Your task to perform on an android device: open app "ZOOM Cloud Meetings" (install if not already installed) Image 0: 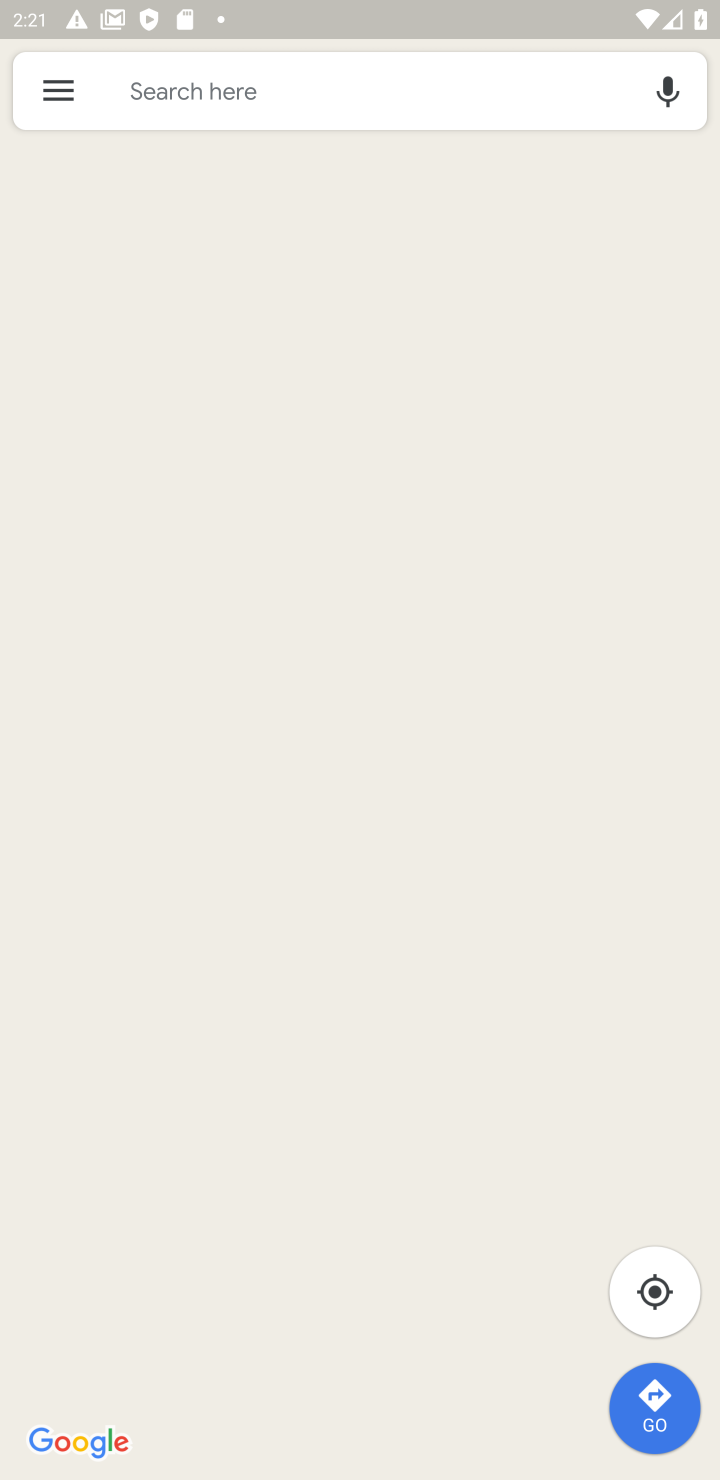
Step 0: press home button
Your task to perform on an android device: open app "ZOOM Cloud Meetings" (install if not already installed) Image 1: 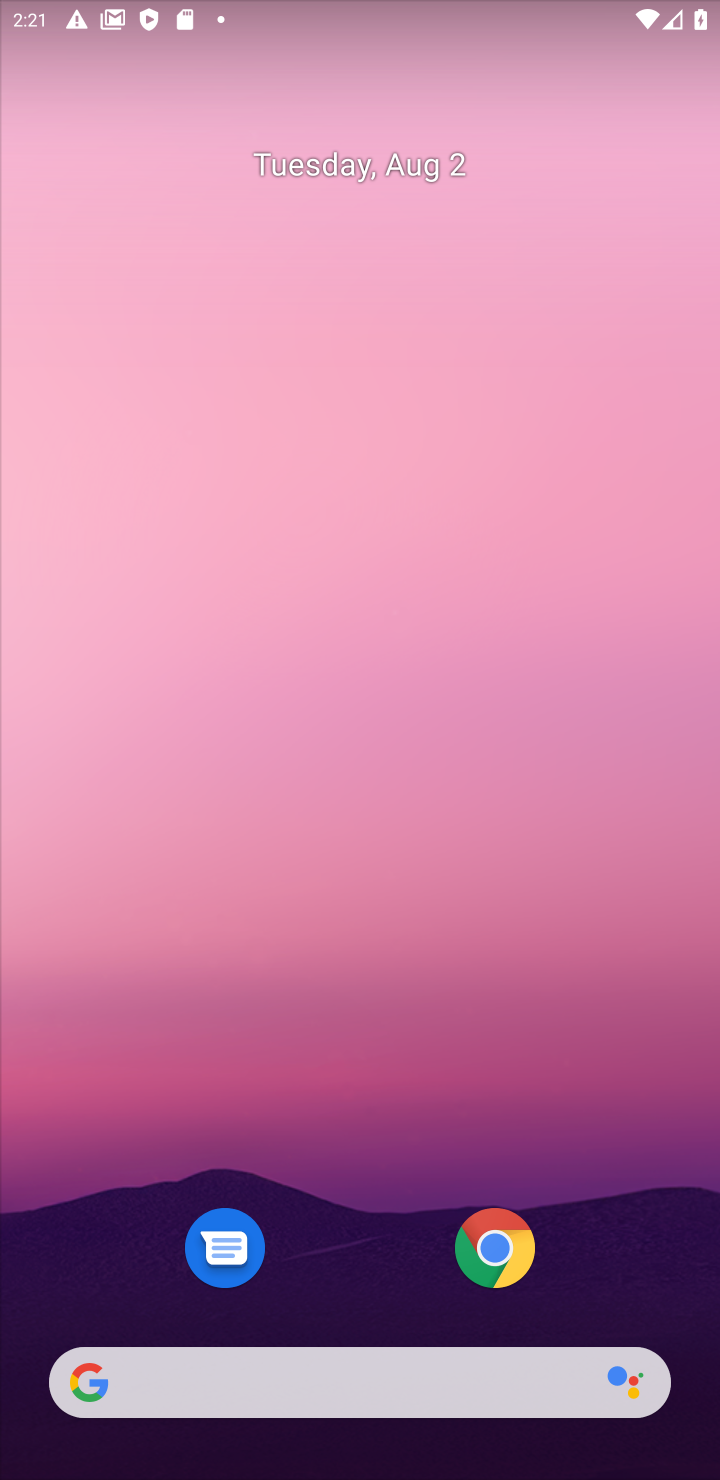
Step 1: drag from (406, 1294) to (393, 2)
Your task to perform on an android device: open app "ZOOM Cloud Meetings" (install if not already installed) Image 2: 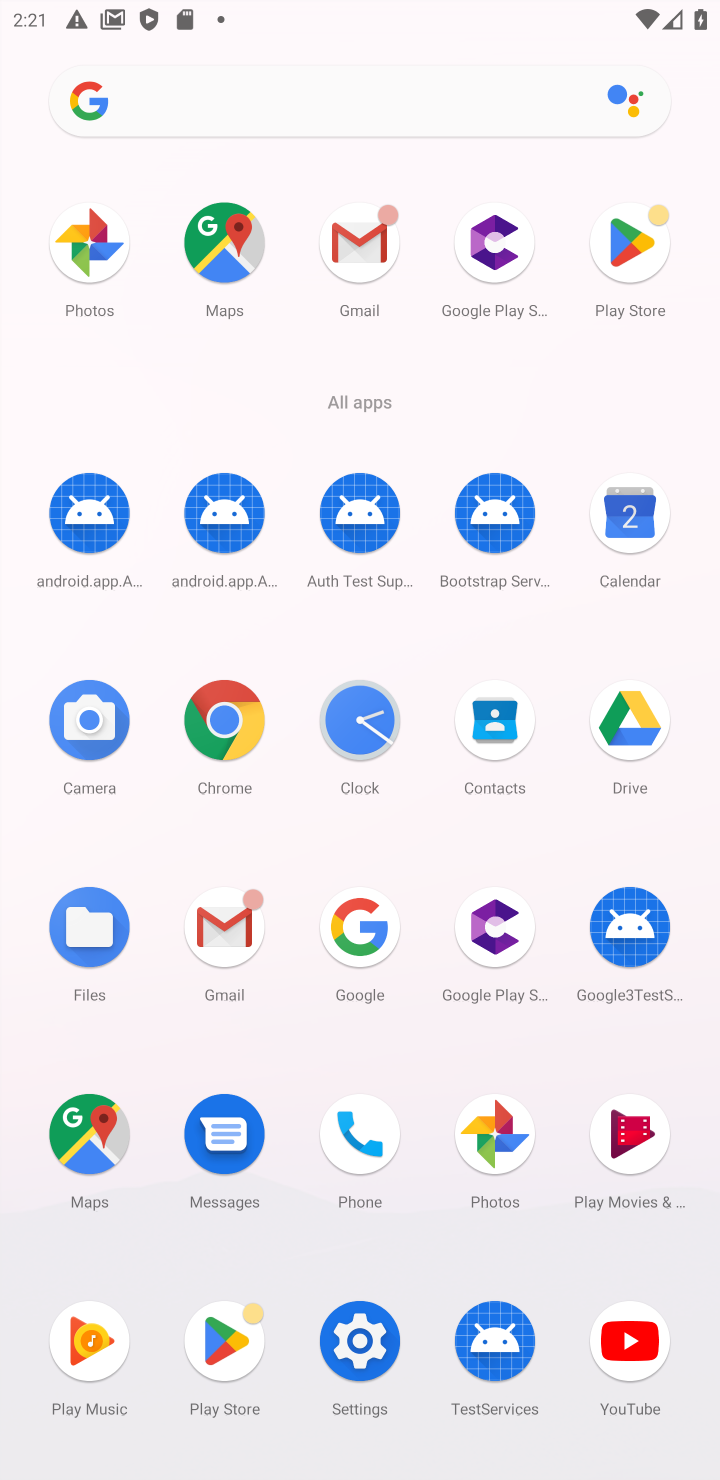
Step 2: click (639, 250)
Your task to perform on an android device: open app "ZOOM Cloud Meetings" (install if not already installed) Image 3: 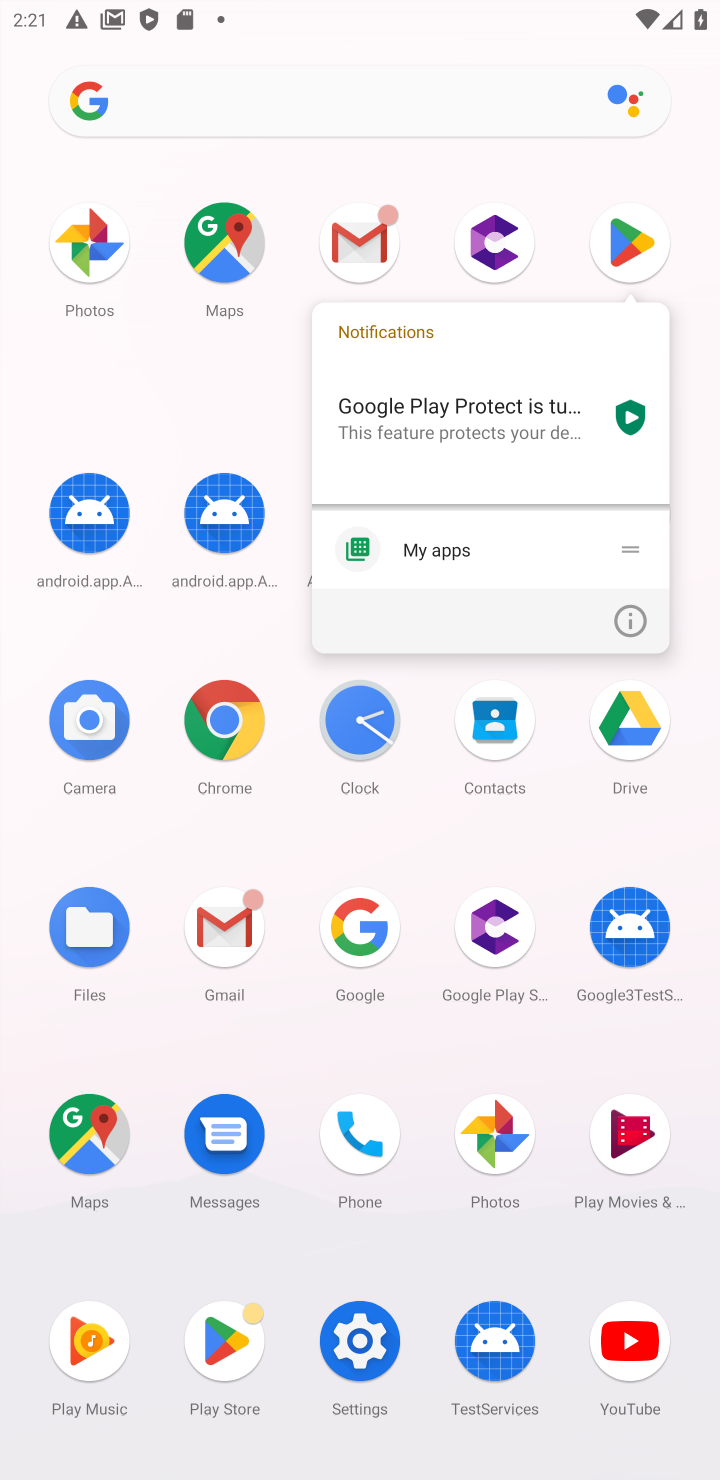
Step 3: click (623, 243)
Your task to perform on an android device: open app "ZOOM Cloud Meetings" (install if not already installed) Image 4: 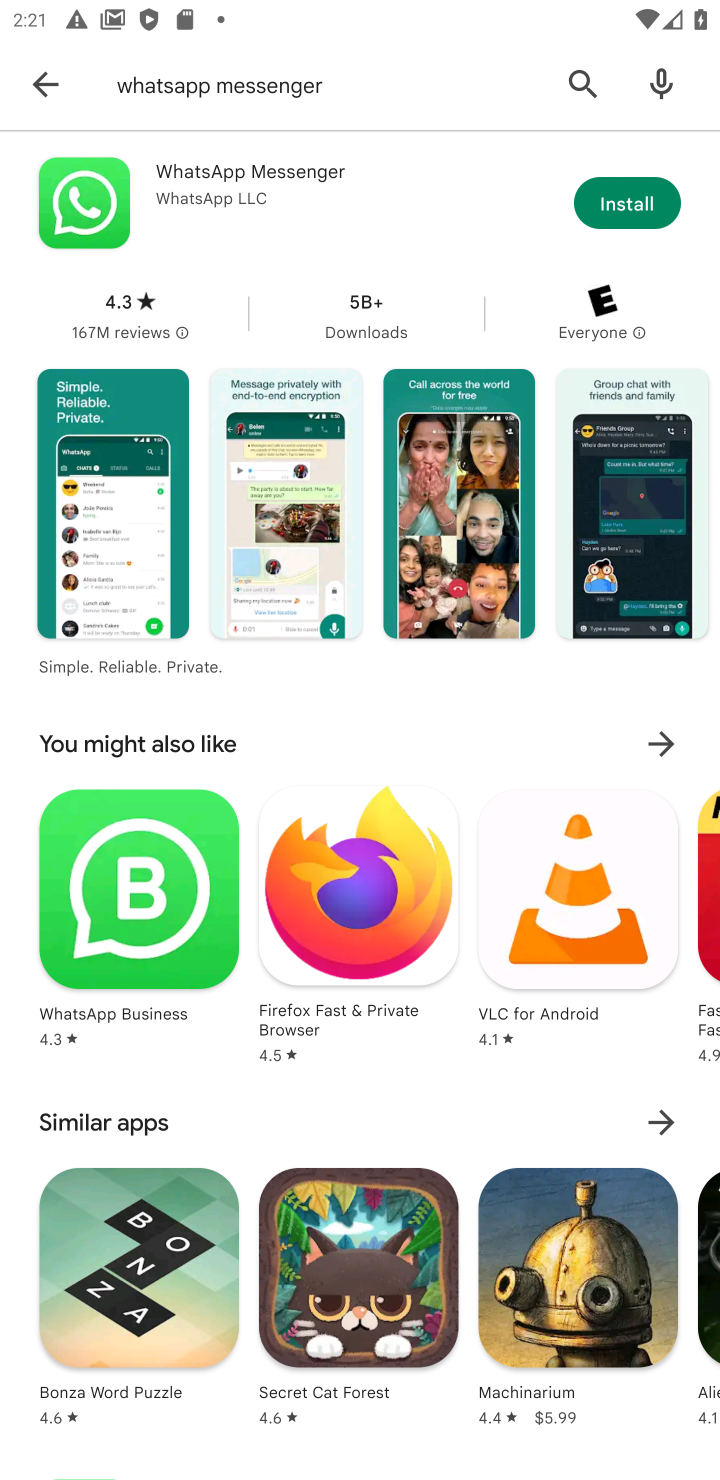
Step 4: click (63, 94)
Your task to perform on an android device: open app "ZOOM Cloud Meetings" (install if not already installed) Image 5: 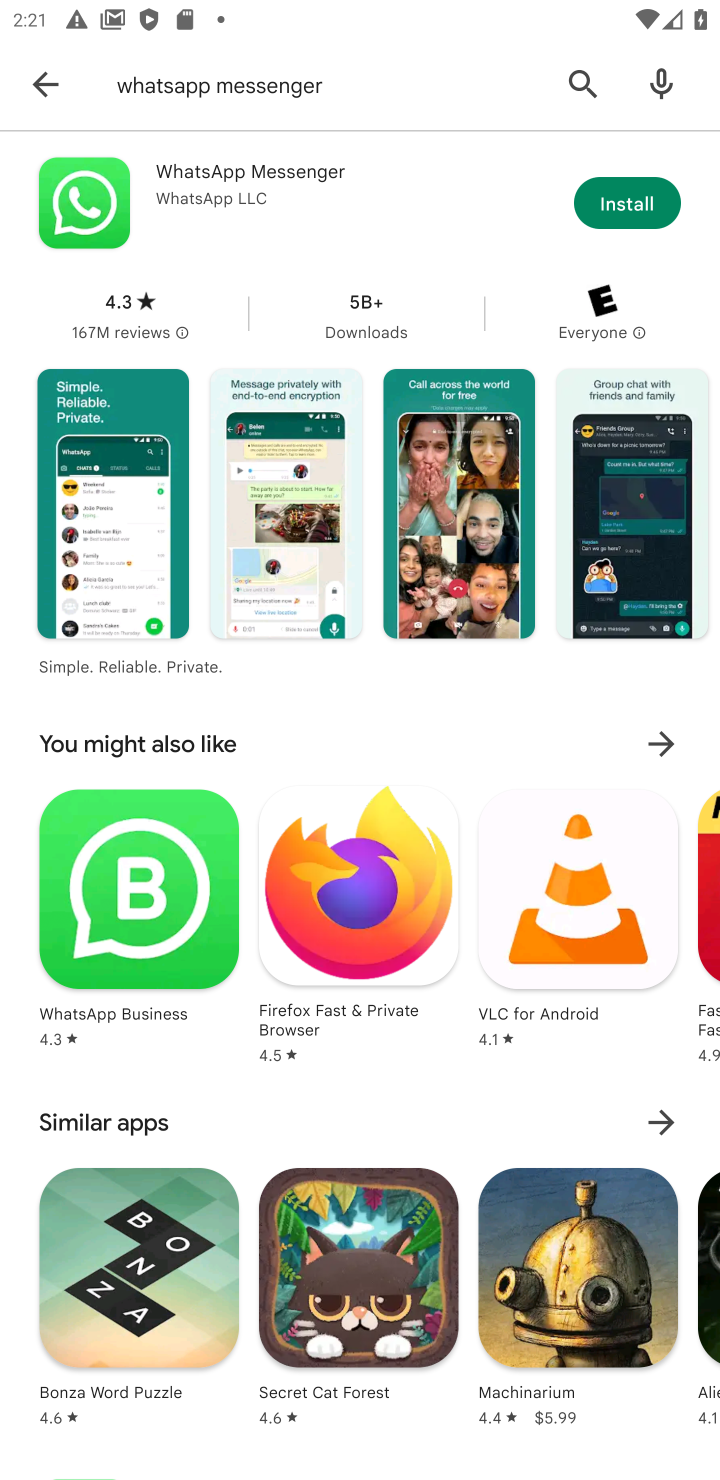
Step 5: click (56, 92)
Your task to perform on an android device: open app "ZOOM Cloud Meetings" (install if not already installed) Image 6: 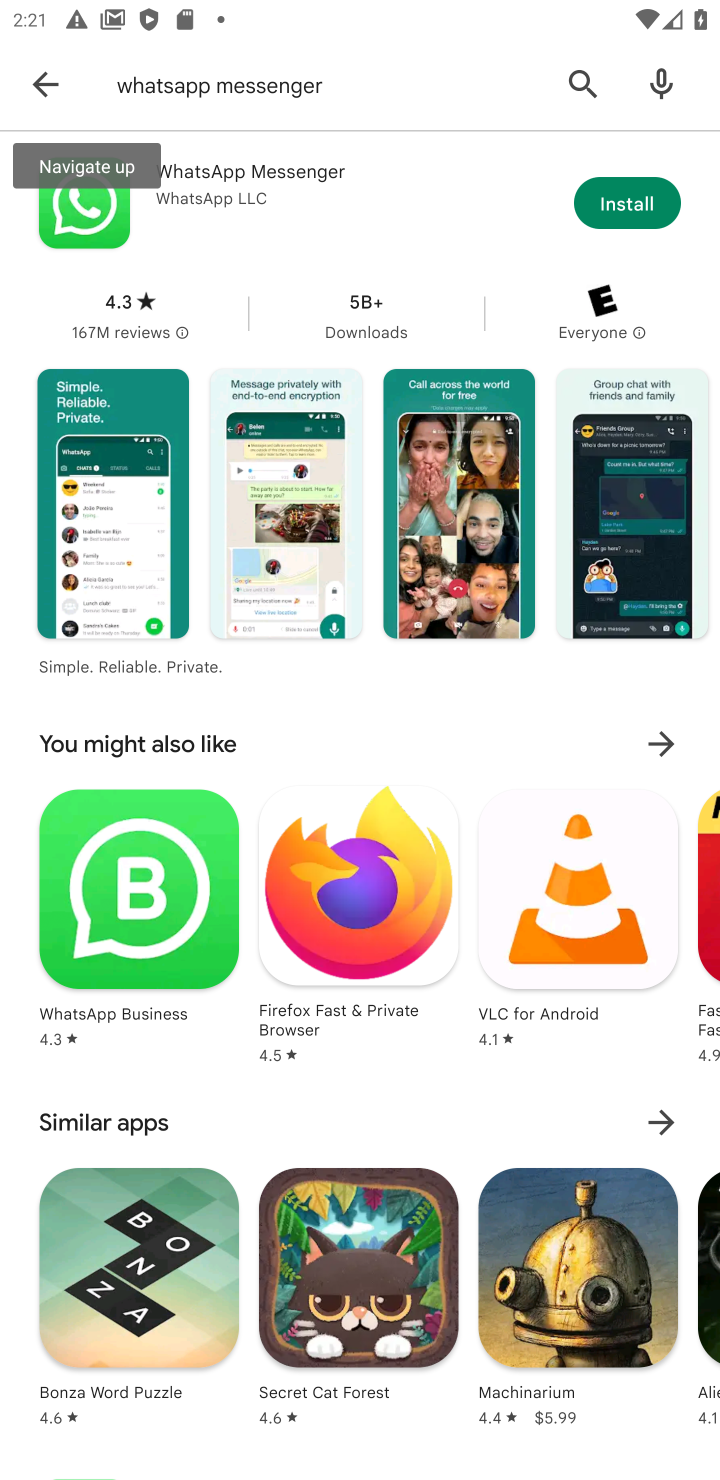
Step 6: click (50, 85)
Your task to perform on an android device: open app "ZOOM Cloud Meetings" (install if not already installed) Image 7: 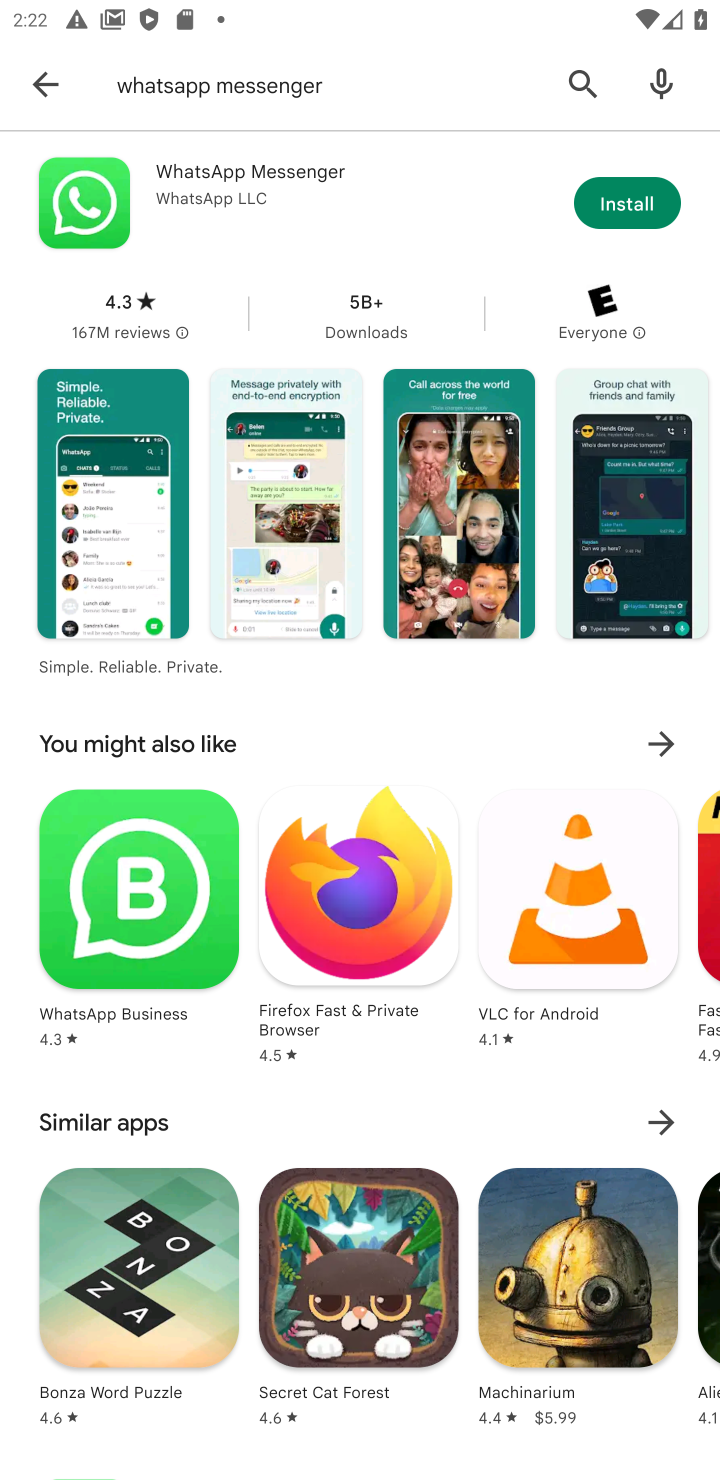
Step 7: click (576, 80)
Your task to perform on an android device: open app "ZOOM Cloud Meetings" (install if not already installed) Image 8: 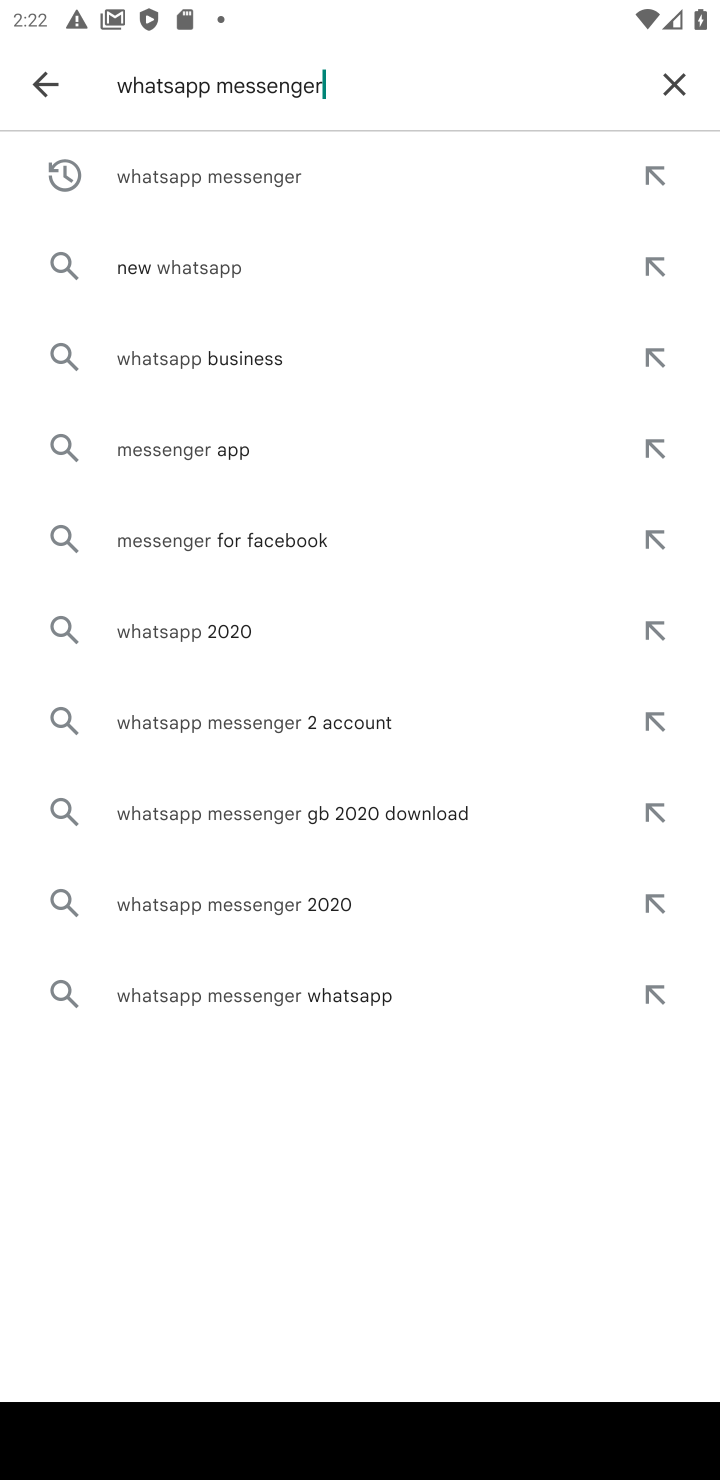
Step 8: click (673, 84)
Your task to perform on an android device: open app "ZOOM Cloud Meetings" (install if not already installed) Image 9: 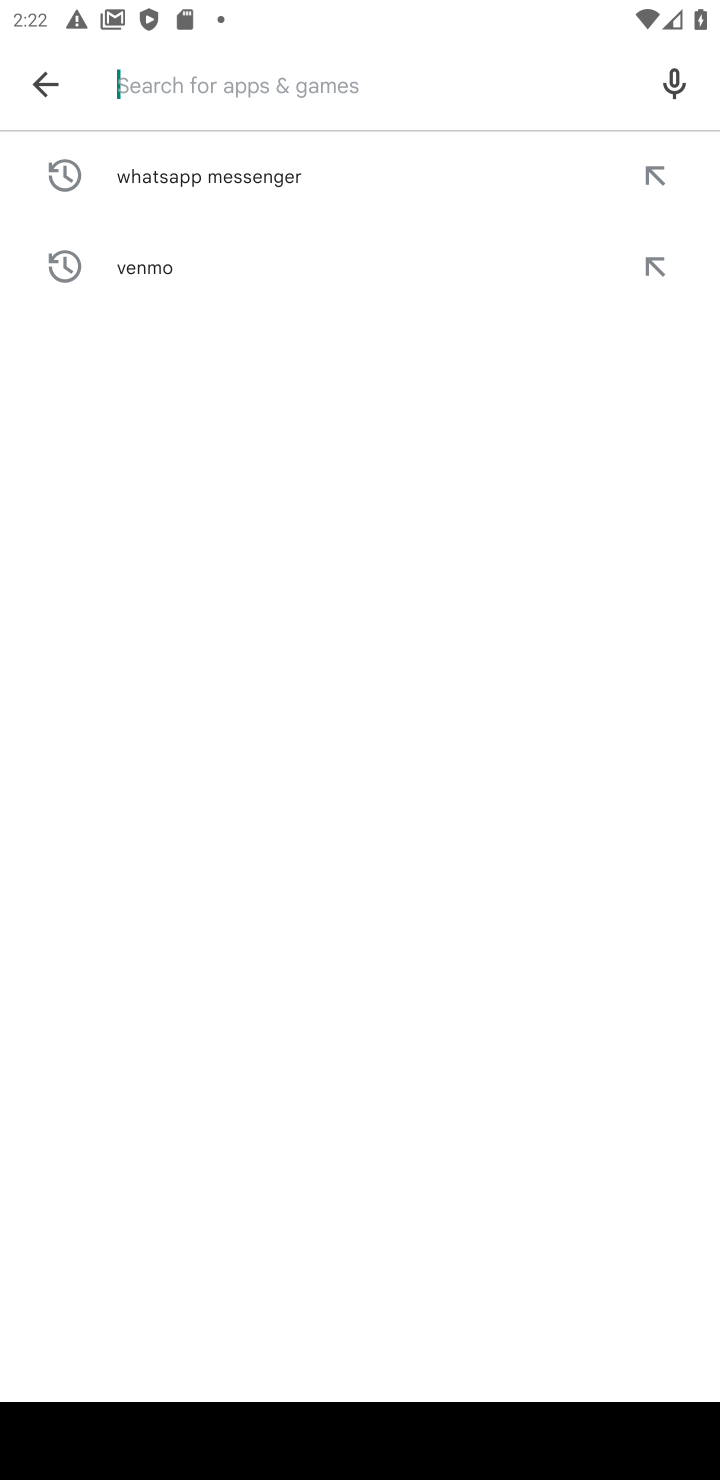
Step 9: type "ZOOM Cloud Meetings"
Your task to perform on an android device: open app "ZOOM Cloud Meetings" (install if not already installed) Image 10: 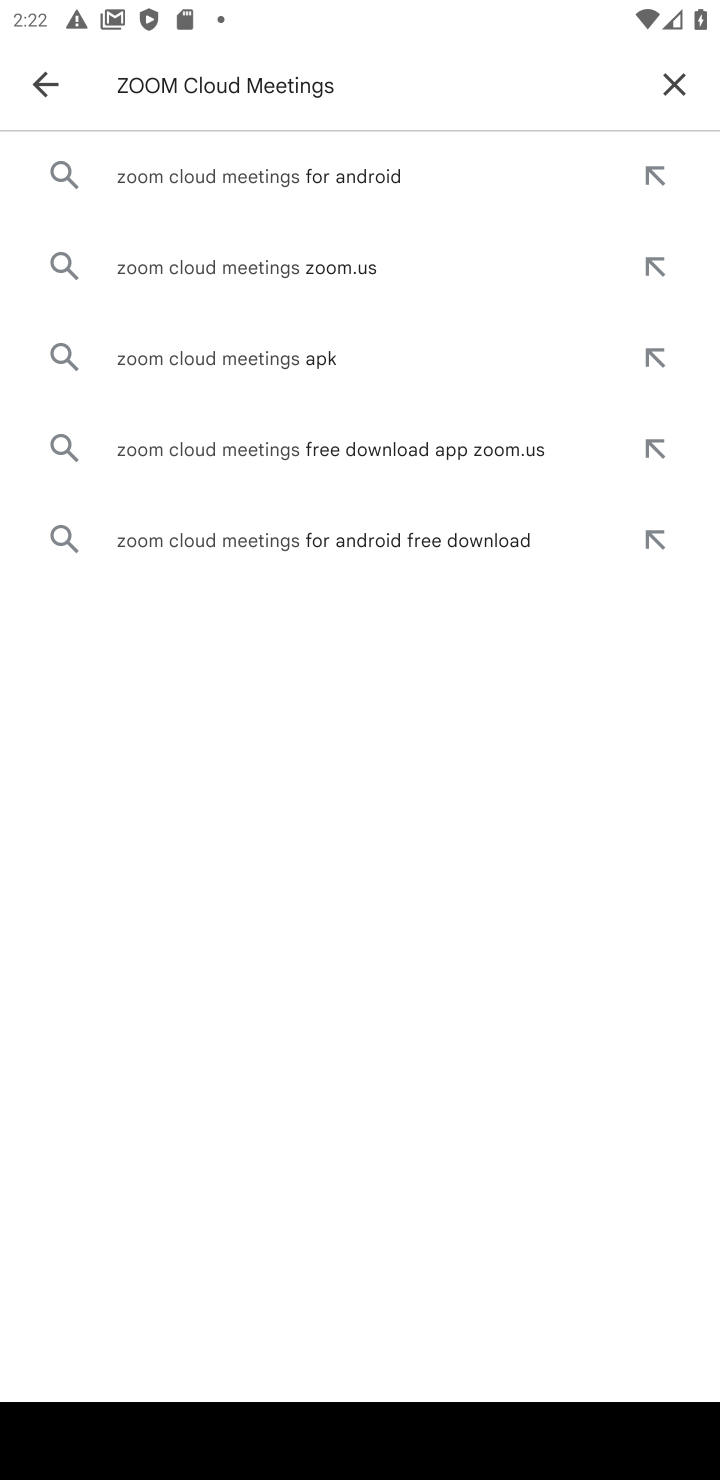
Step 10: click (239, 190)
Your task to perform on an android device: open app "ZOOM Cloud Meetings" (install if not already installed) Image 11: 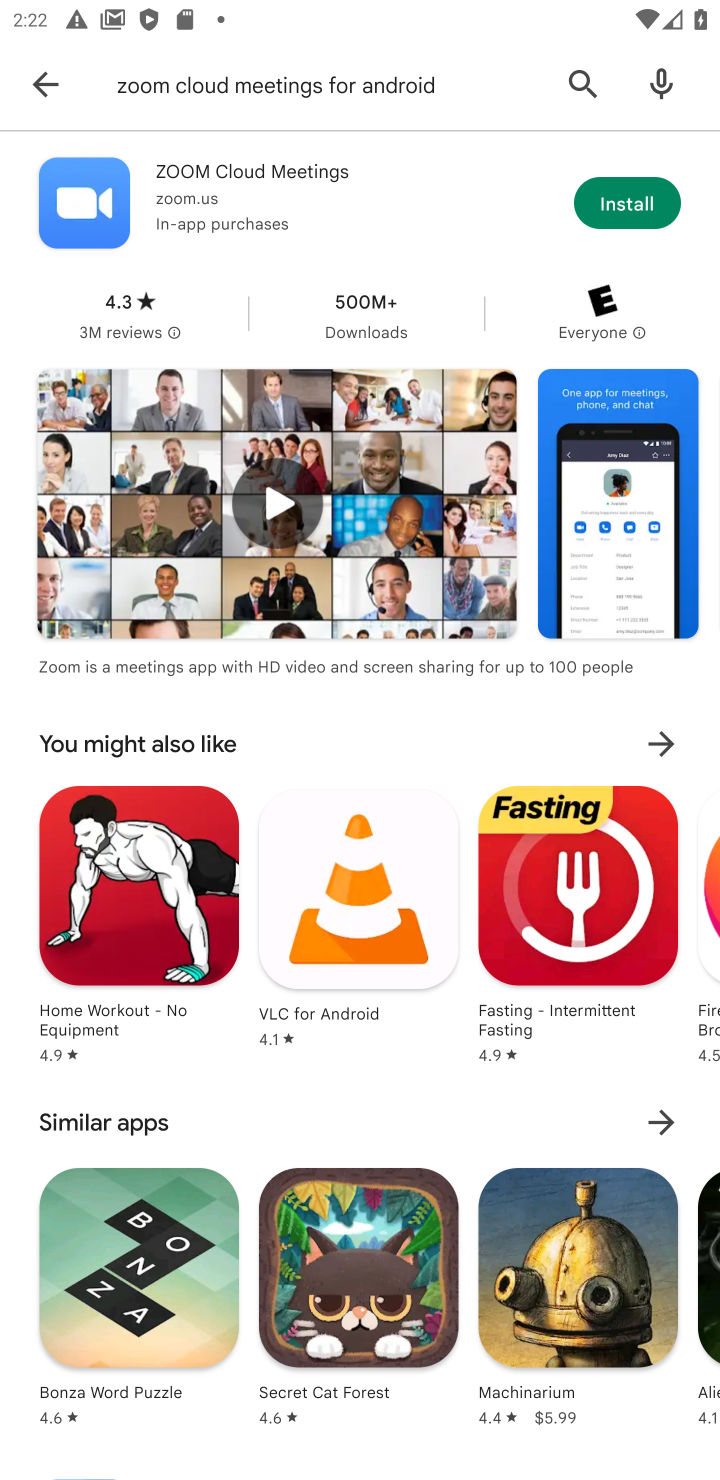
Step 11: click (687, 183)
Your task to perform on an android device: open app "ZOOM Cloud Meetings" (install if not already installed) Image 12: 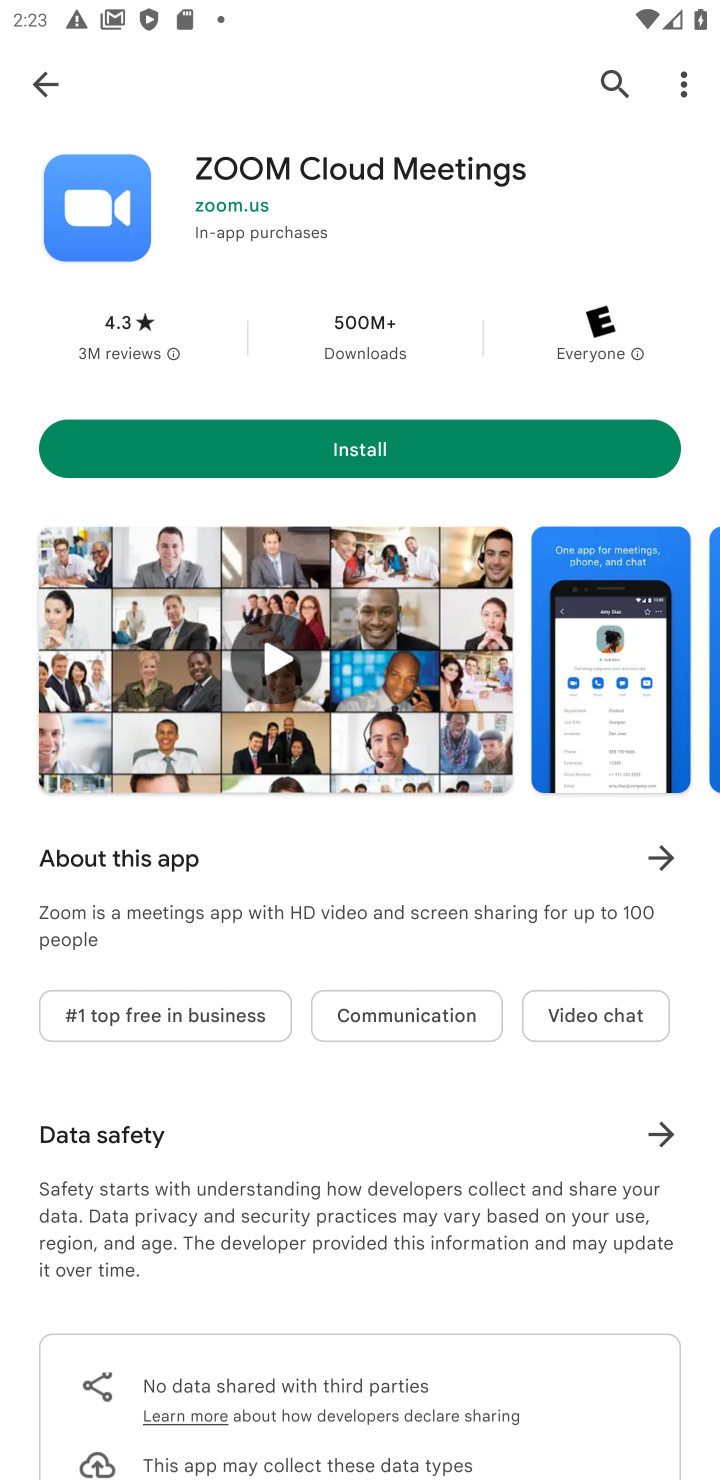
Step 12: click (346, 446)
Your task to perform on an android device: open app "ZOOM Cloud Meetings" (install if not already installed) Image 13: 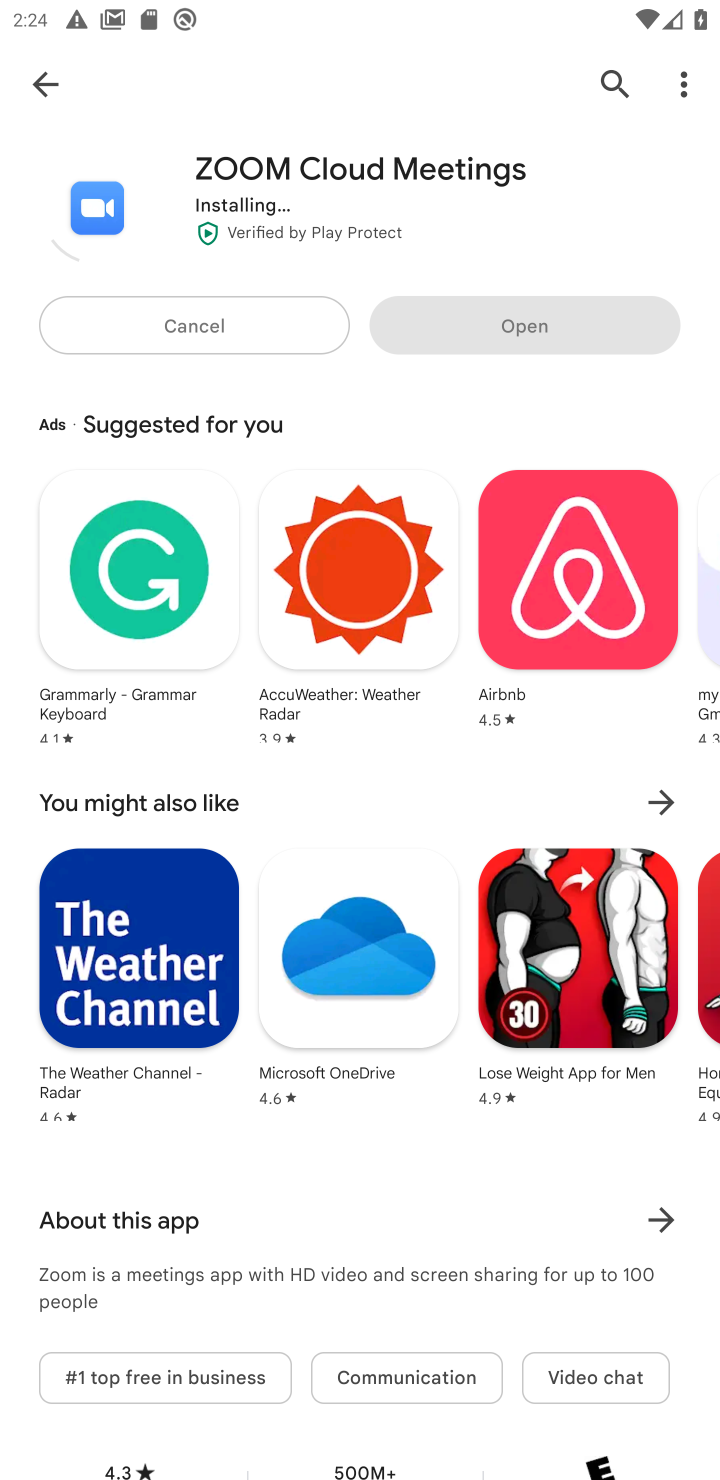
Step 13: task complete